Your task to perform on an android device: change keyboard looks Image 0: 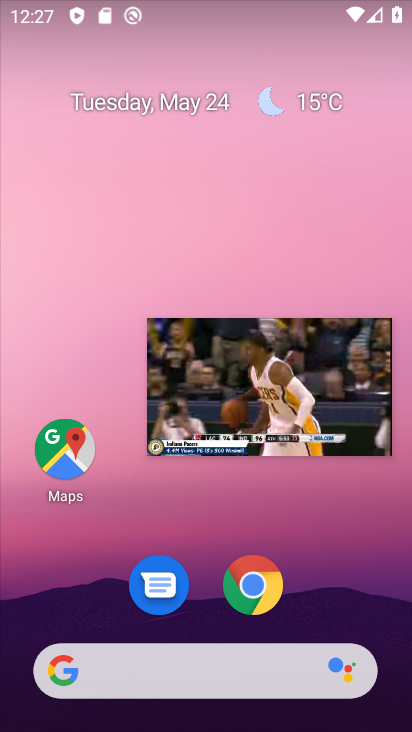
Step 0: drag from (99, 519) to (135, 44)
Your task to perform on an android device: change keyboard looks Image 1: 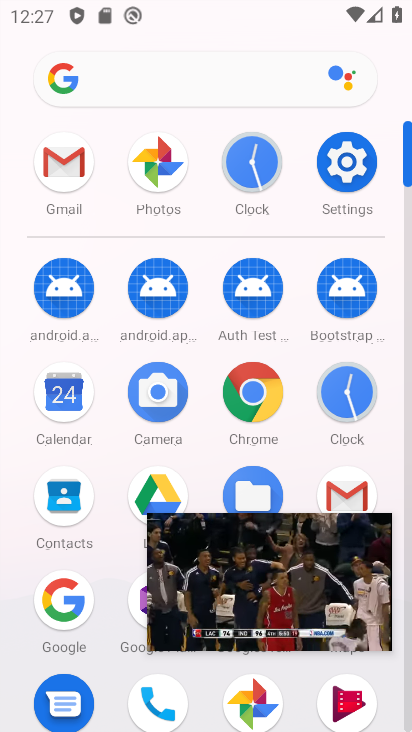
Step 1: click (340, 150)
Your task to perform on an android device: change keyboard looks Image 2: 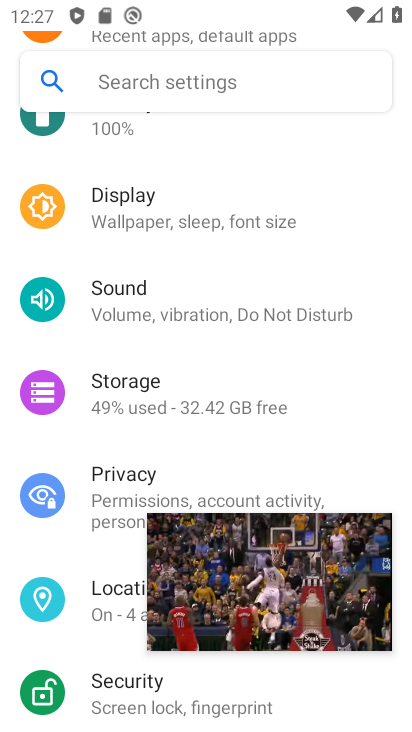
Step 2: drag from (219, 433) to (250, 202)
Your task to perform on an android device: change keyboard looks Image 3: 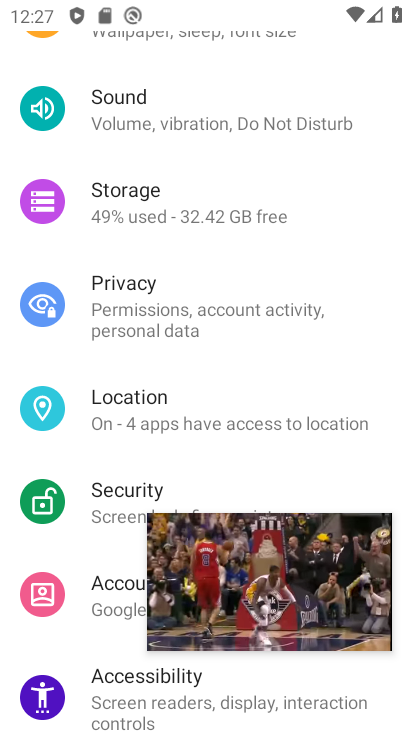
Step 3: drag from (233, 340) to (271, 71)
Your task to perform on an android device: change keyboard looks Image 4: 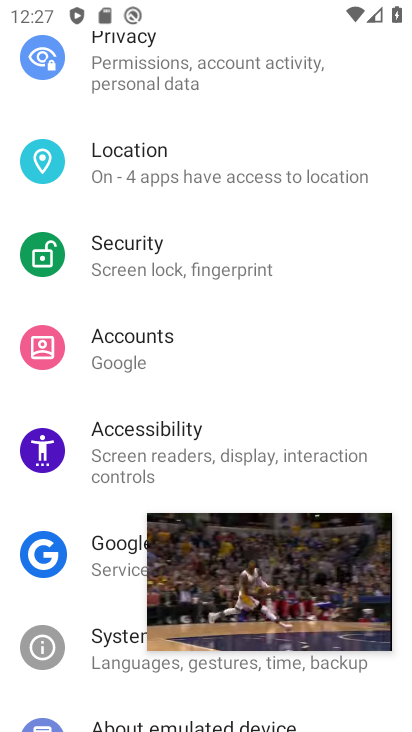
Step 4: drag from (219, 335) to (257, 89)
Your task to perform on an android device: change keyboard looks Image 5: 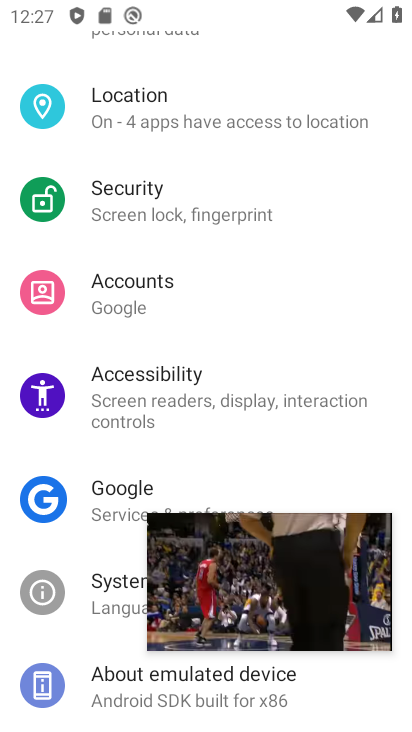
Step 5: click (94, 594)
Your task to perform on an android device: change keyboard looks Image 6: 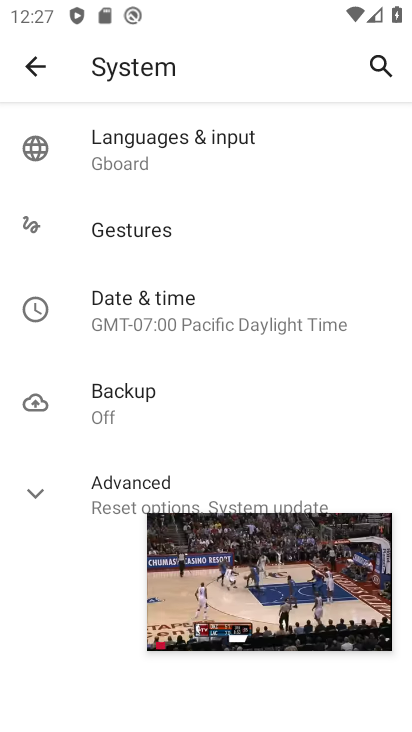
Step 6: click (175, 152)
Your task to perform on an android device: change keyboard looks Image 7: 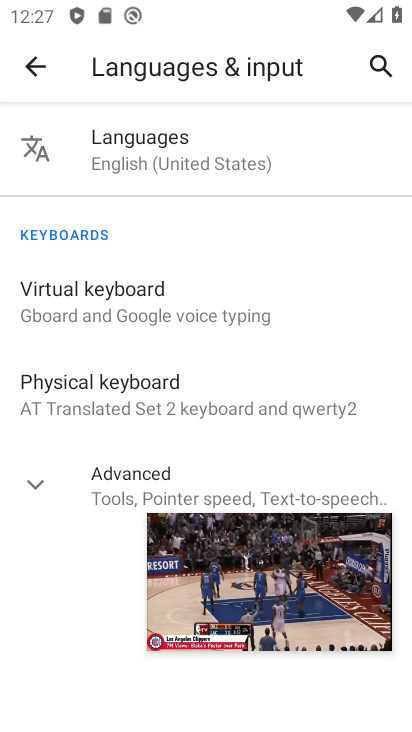
Step 7: click (114, 297)
Your task to perform on an android device: change keyboard looks Image 8: 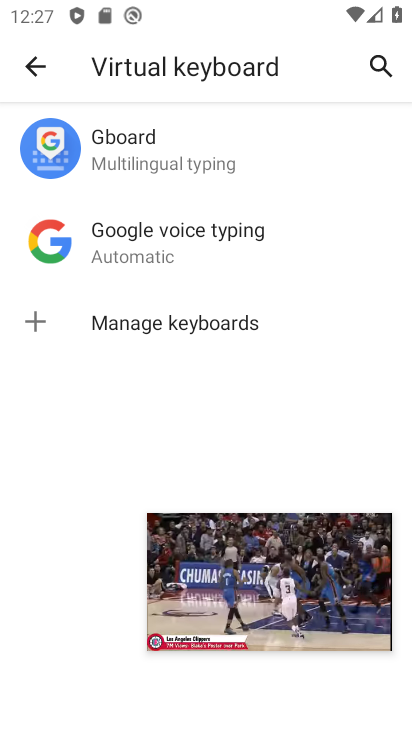
Step 8: click (169, 161)
Your task to perform on an android device: change keyboard looks Image 9: 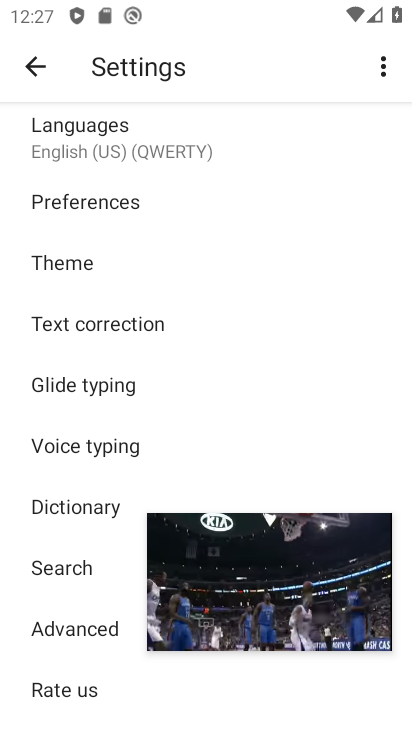
Step 9: click (74, 270)
Your task to perform on an android device: change keyboard looks Image 10: 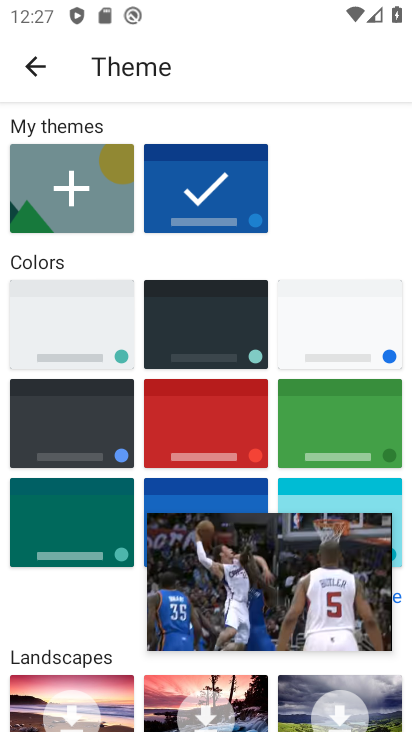
Step 10: click (71, 318)
Your task to perform on an android device: change keyboard looks Image 11: 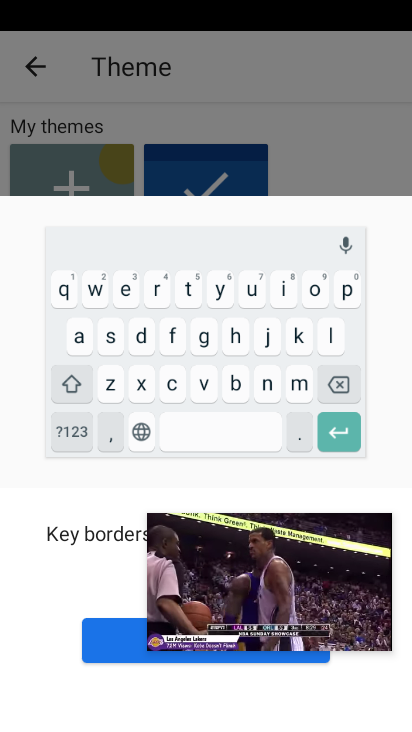
Step 11: click (93, 645)
Your task to perform on an android device: change keyboard looks Image 12: 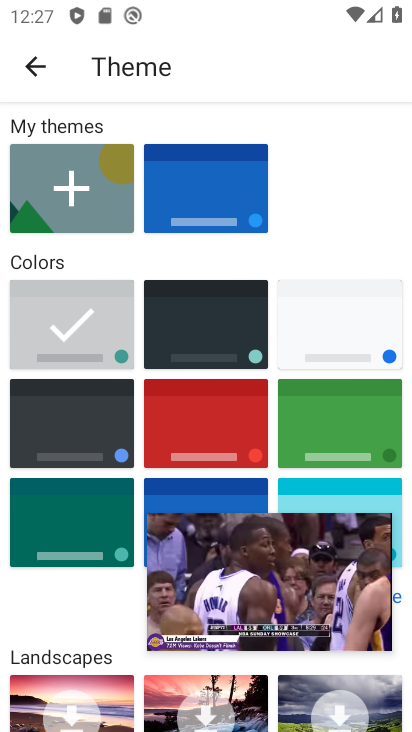
Step 12: task complete